Your task to perform on an android device: turn off location history Image 0: 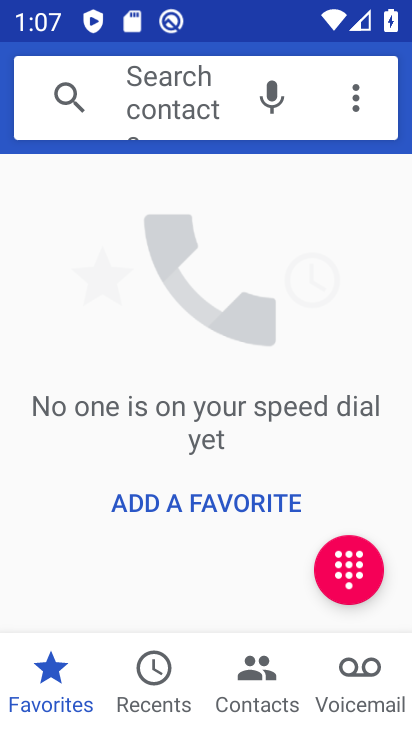
Step 0: press home button
Your task to perform on an android device: turn off location history Image 1: 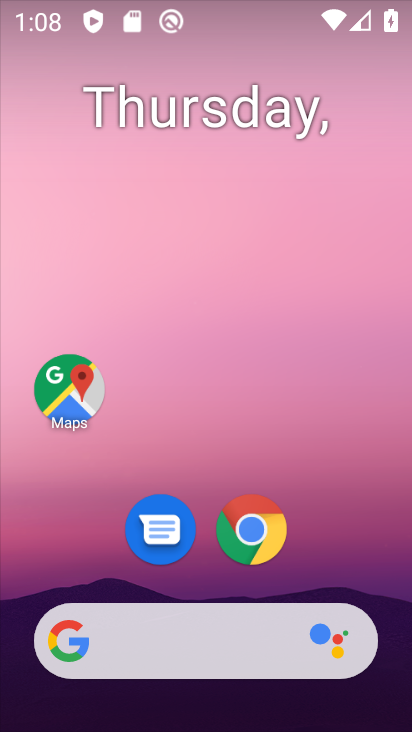
Step 1: drag from (210, 719) to (210, 0)
Your task to perform on an android device: turn off location history Image 2: 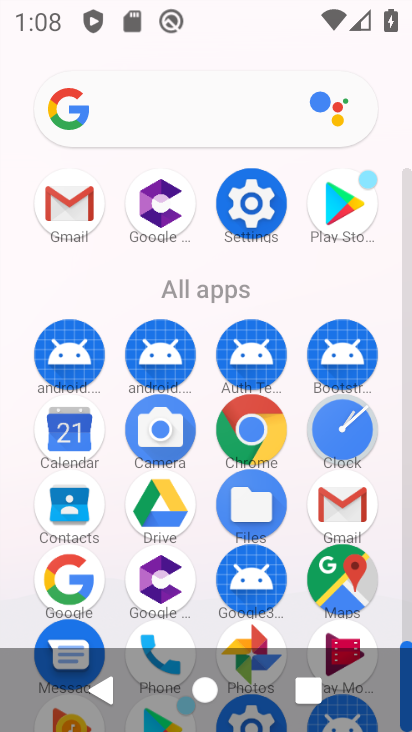
Step 2: click (241, 216)
Your task to perform on an android device: turn off location history Image 3: 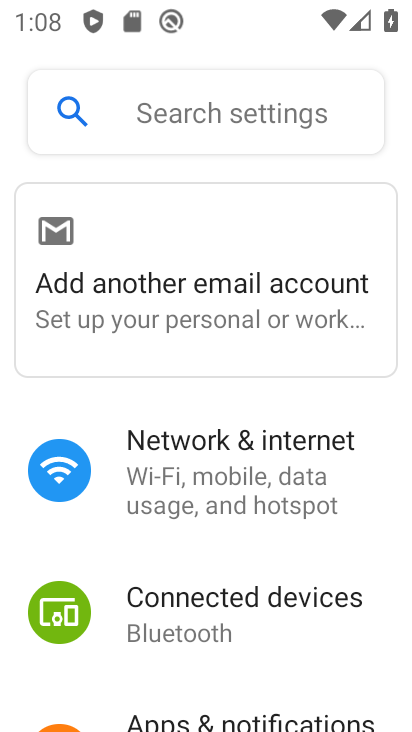
Step 3: drag from (209, 670) to (214, 345)
Your task to perform on an android device: turn off location history Image 4: 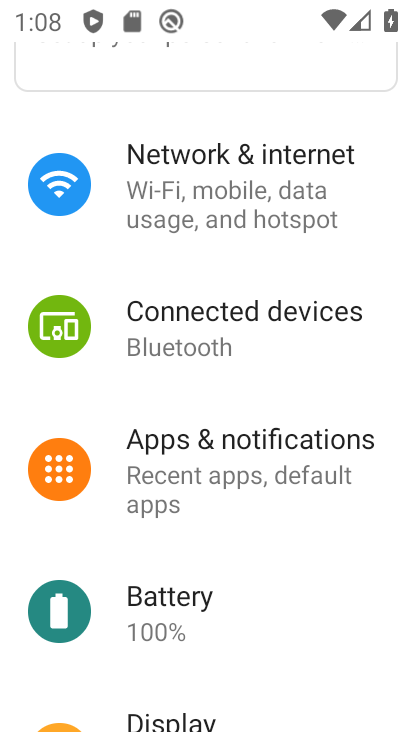
Step 4: drag from (216, 675) to (216, 235)
Your task to perform on an android device: turn off location history Image 5: 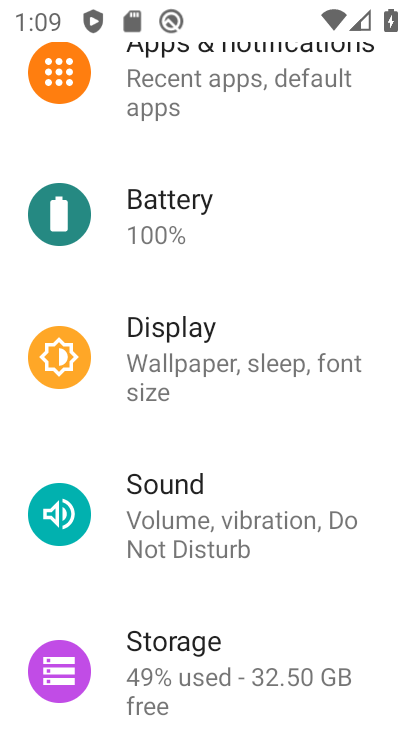
Step 5: drag from (201, 643) to (192, 315)
Your task to perform on an android device: turn off location history Image 6: 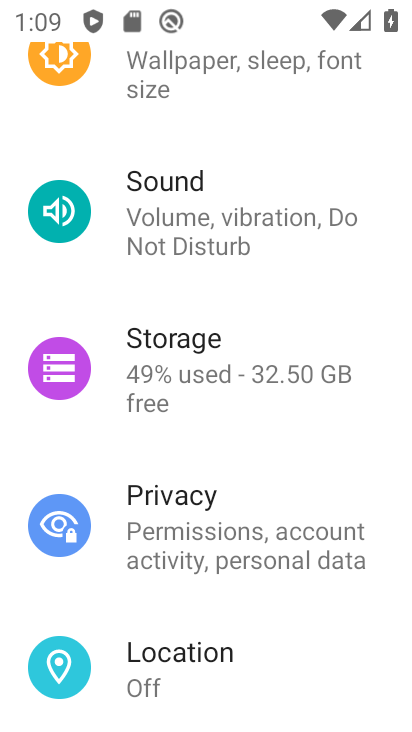
Step 6: click (187, 650)
Your task to perform on an android device: turn off location history Image 7: 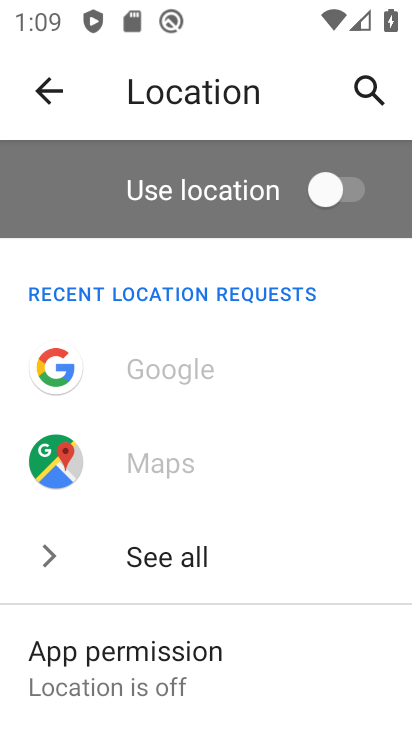
Step 7: drag from (200, 673) to (206, 321)
Your task to perform on an android device: turn off location history Image 8: 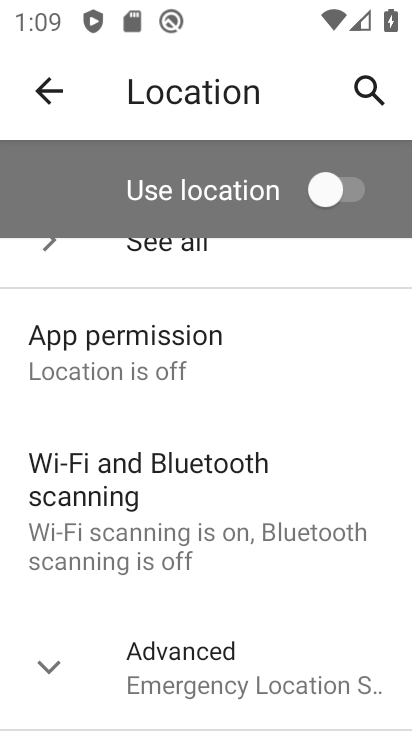
Step 8: drag from (159, 625) to (157, 301)
Your task to perform on an android device: turn off location history Image 9: 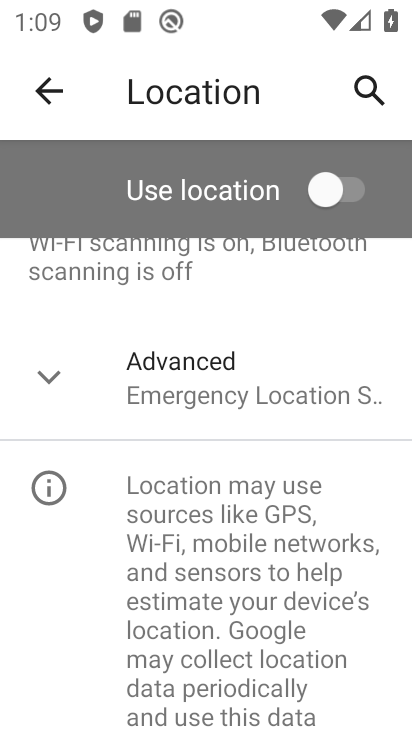
Step 9: click (177, 375)
Your task to perform on an android device: turn off location history Image 10: 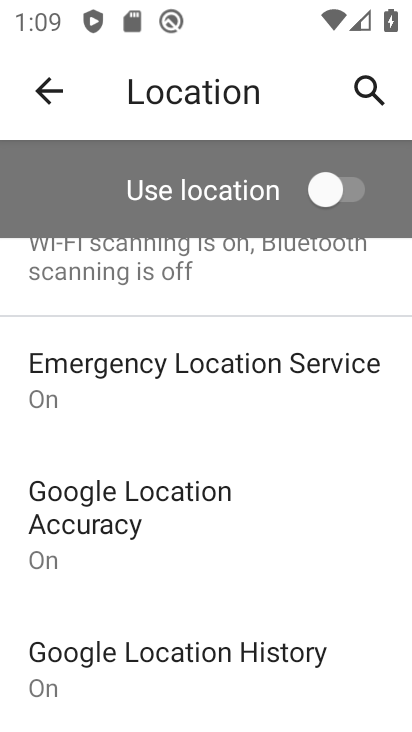
Step 10: drag from (171, 626) to (172, 381)
Your task to perform on an android device: turn off location history Image 11: 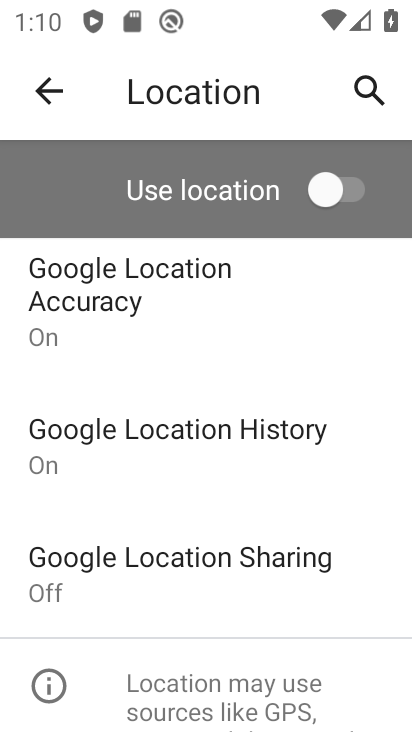
Step 11: click (144, 430)
Your task to perform on an android device: turn off location history Image 12: 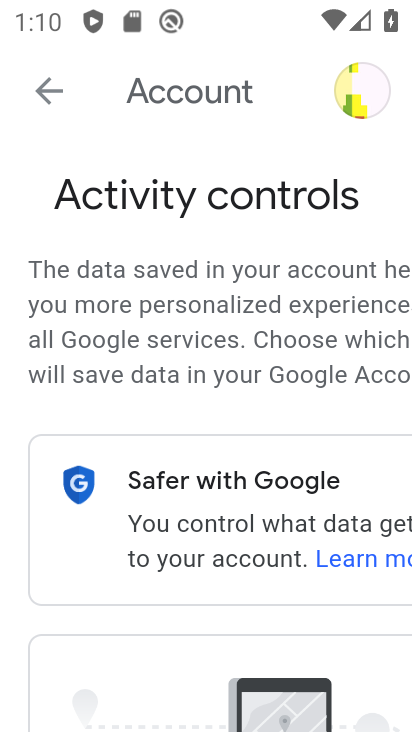
Step 12: task complete